Your task to perform on an android device: What is the recent news? Image 0: 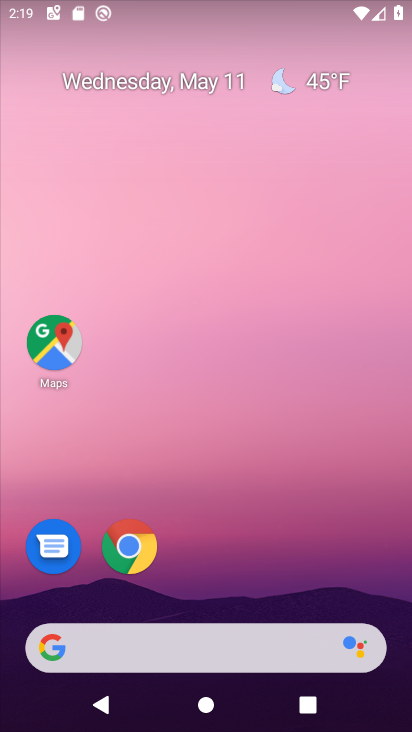
Step 0: click (228, 651)
Your task to perform on an android device: What is the recent news? Image 1: 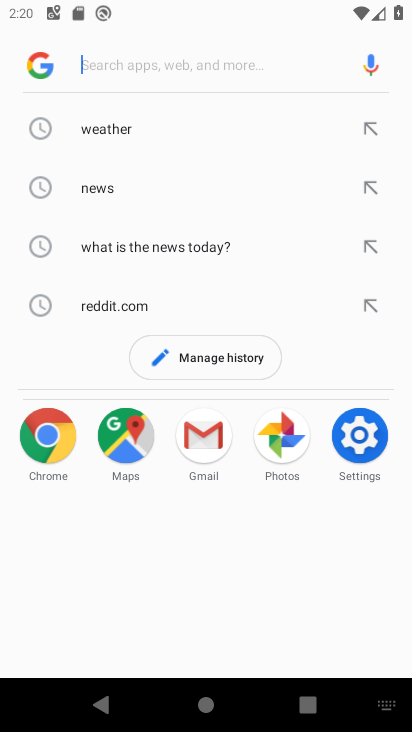
Step 1: type "recent news"
Your task to perform on an android device: What is the recent news? Image 2: 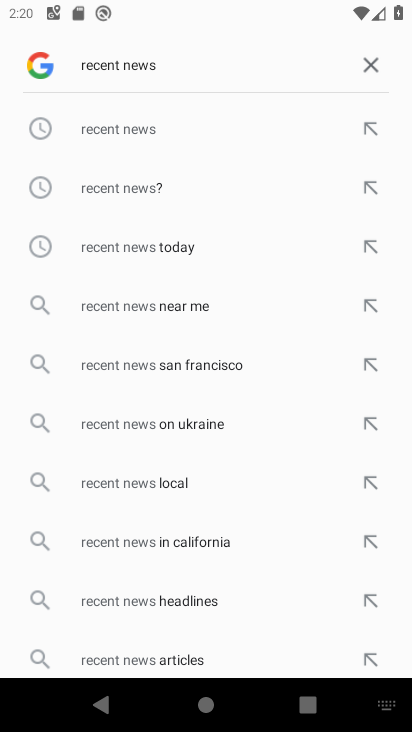
Step 2: click (149, 187)
Your task to perform on an android device: What is the recent news? Image 3: 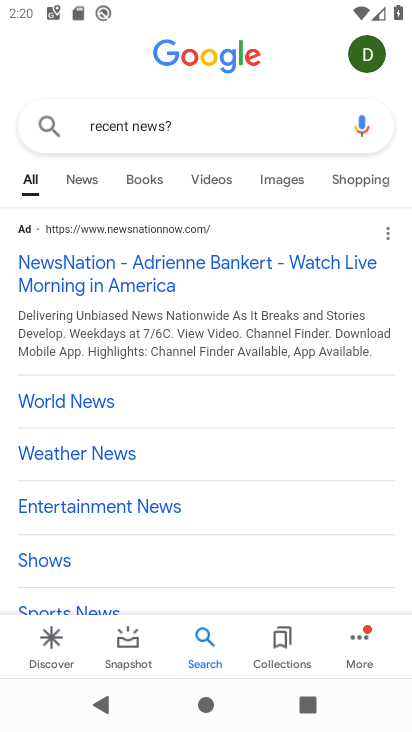
Step 3: task complete